Your task to perform on an android device: toggle pop-ups in chrome Image 0: 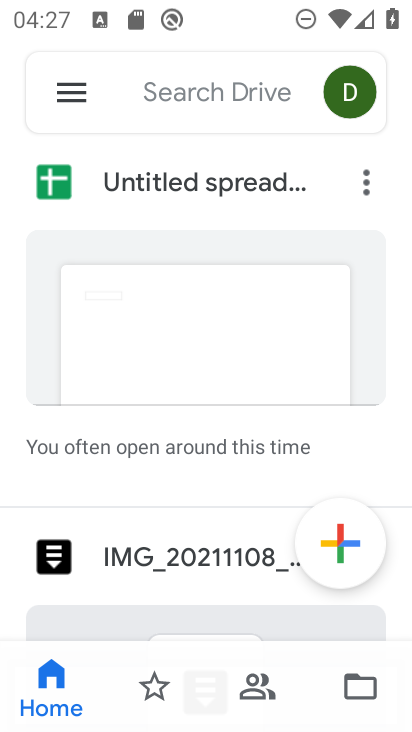
Step 0: press home button
Your task to perform on an android device: toggle pop-ups in chrome Image 1: 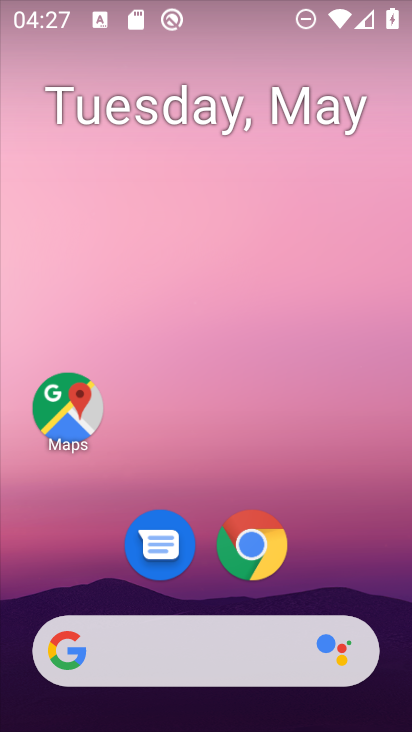
Step 1: click (250, 541)
Your task to perform on an android device: toggle pop-ups in chrome Image 2: 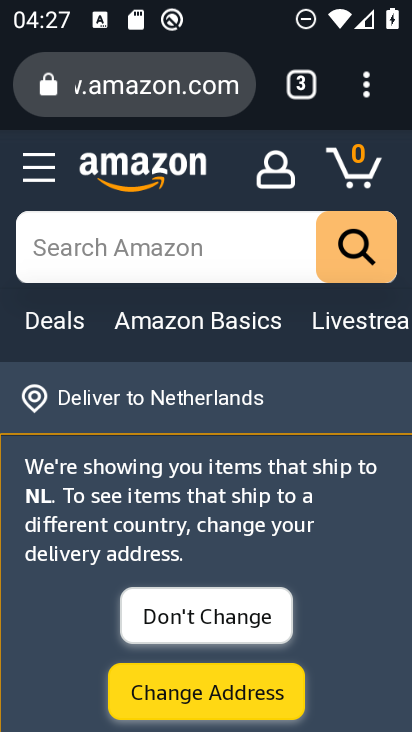
Step 2: click (365, 95)
Your task to perform on an android device: toggle pop-ups in chrome Image 3: 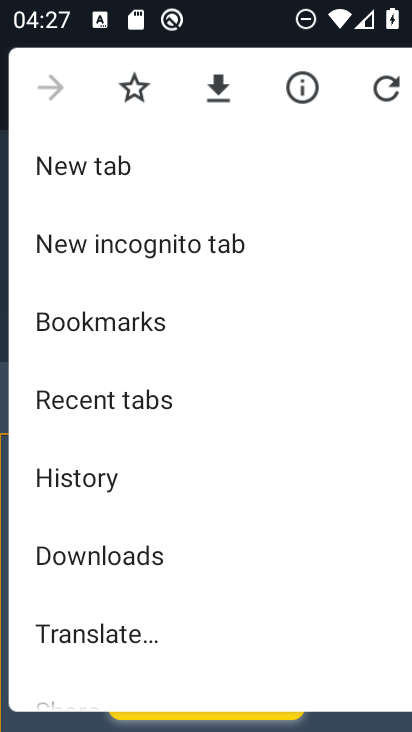
Step 3: drag from (203, 564) to (245, 196)
Your task to perform on an android device: toggle pop-ups in chrome Image 4: 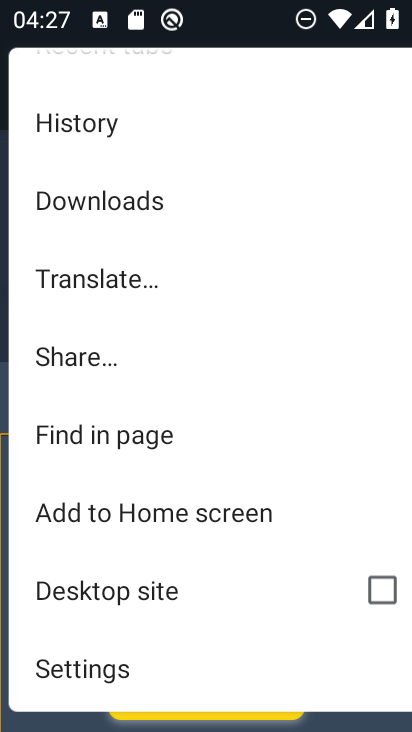
Step 4: click (103, 674)
Your task to perform on an android device: toggle pop-ups in chrome Image 5: 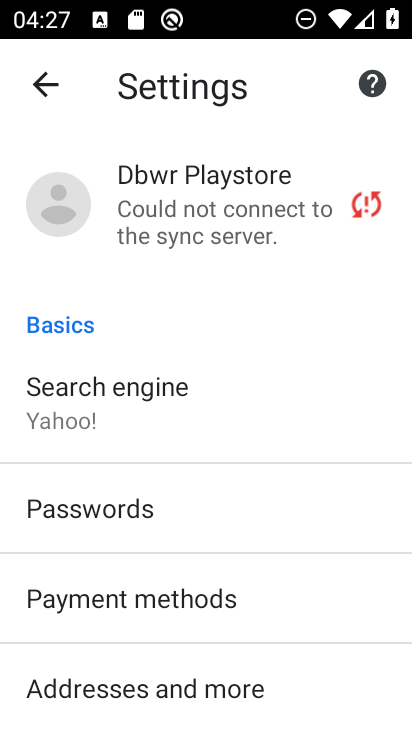
Step 5: drag from (296, 671) to (242, 154)
Your task to perform on an android device: toggle pop-ups in chrome Image 6: 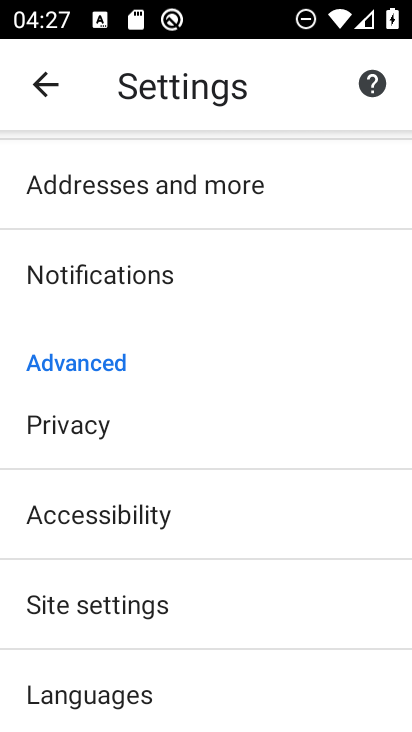
Step 6: click (84, 619)
Your task to perform on an android device: toggle pop-ups in chrome Image 7: 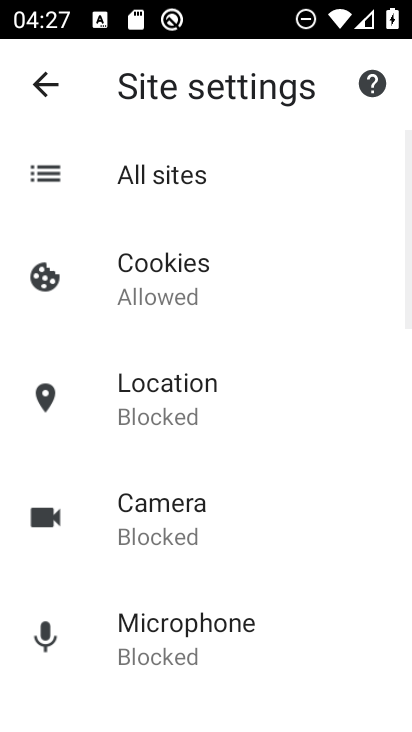
Step 7: drag from (293, 641) to (233, 90)
Your task to perform on an android device: toggle pop-ups in chrome Image 8: 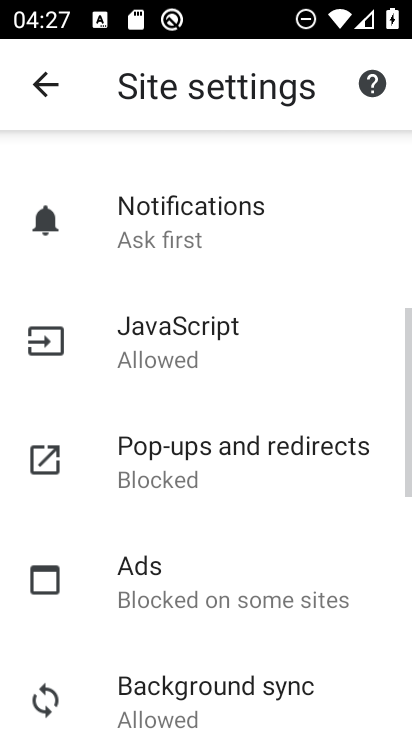
Step 8: click (165, 462)
Your task to perform on an android device: toggle pop-ups in chrome Image 9: 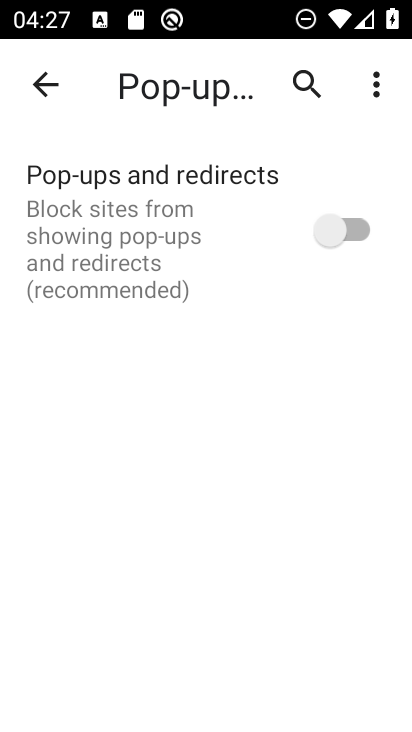
Step 9: click (358, 226)
Your task to perform on an android device: toggle pop-ups in chrome Image 10: 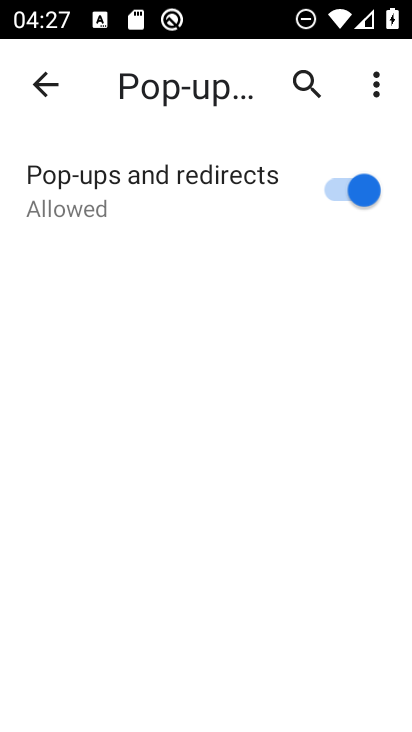
Step 10: task complete